Your task to perform on an android device: Open Maps and search for coffee Image 0: 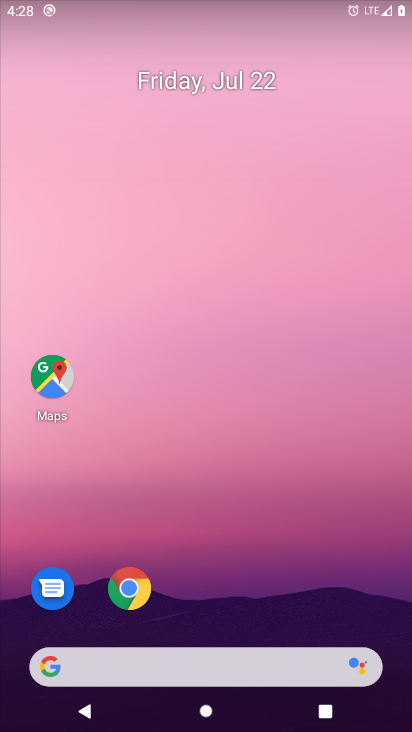
Step 0: drag from (134, 3) to (199, 338)
Your task to perform on an android device: Open Maps and search for coffee Image 1: 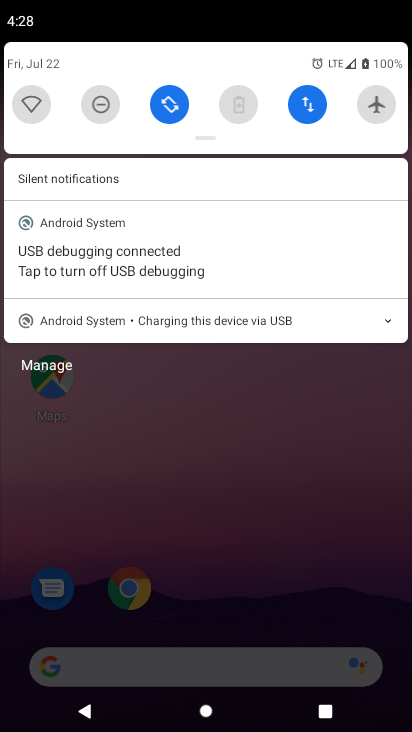
Step 1: press home button
Your task to perform on an android device: Open Maps and search for coffee Image 2: 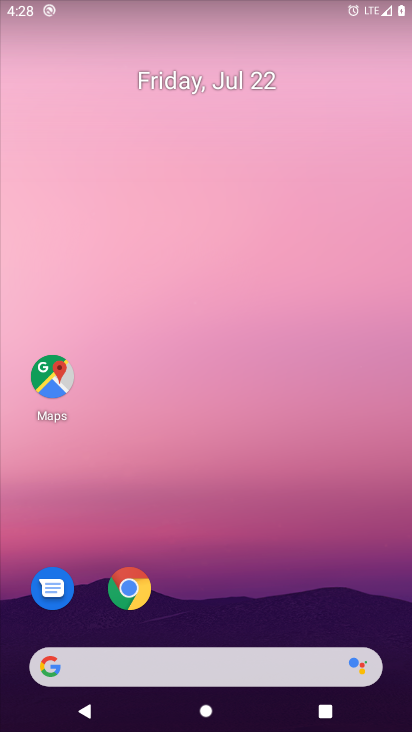
Step 2: drag from (215, 606) to (191, 126)
Your task to perform on an android device: Open Maps and search for coffee Image 3: 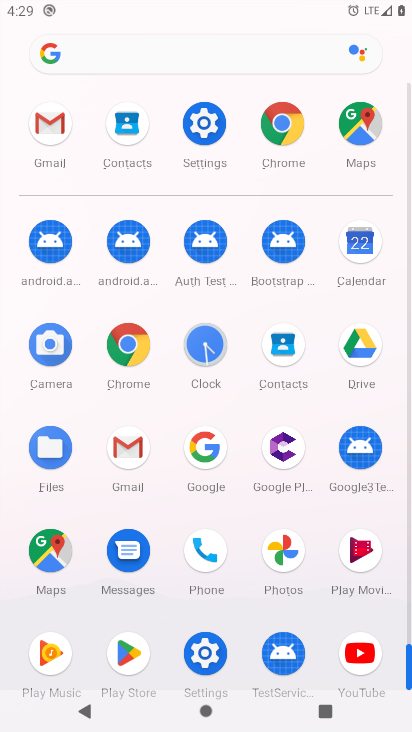
Step 3: click (46, 557)
Your task to perform on an android device: Open Maps and search for coffee Image 4: 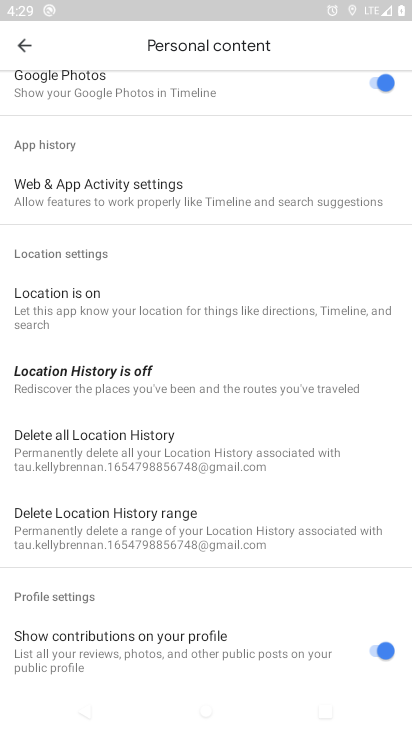
Step 4: click (16, 34)
Your task to perform on an android device: Open Maps and search for coffee Image 5: 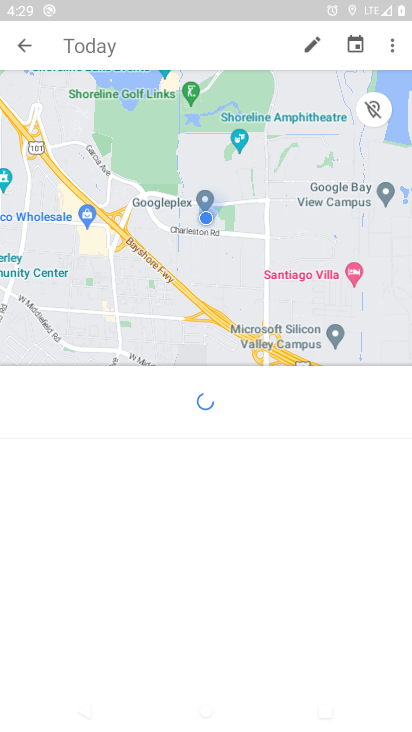
Step 5: click (21, 54)
Your task to perform on an android device: Open Maps and search for coffee Image 6: 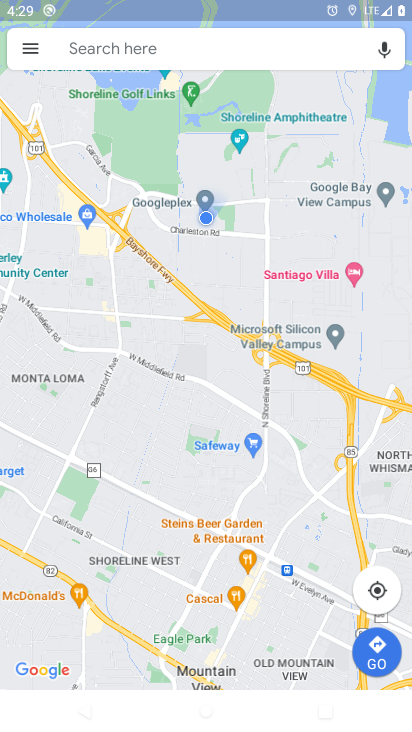
Step 6: click (74, 45)
Your task to perform on an android device: Open Maps and search for coffee Image 7: 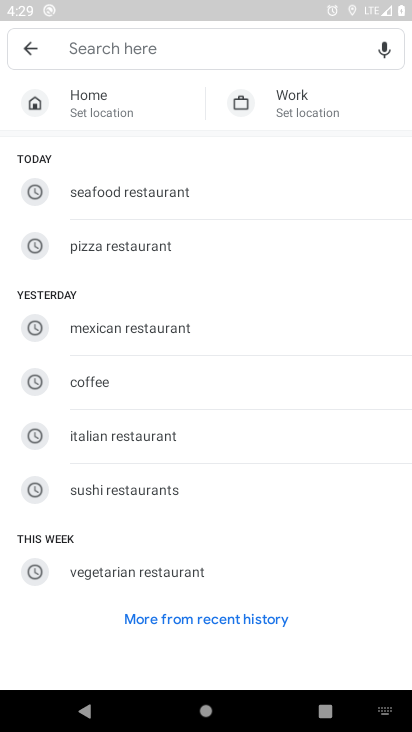
Step 7: type " coffee"
Your task to perform on an android device: Open Maps and search for coffee Image 8: 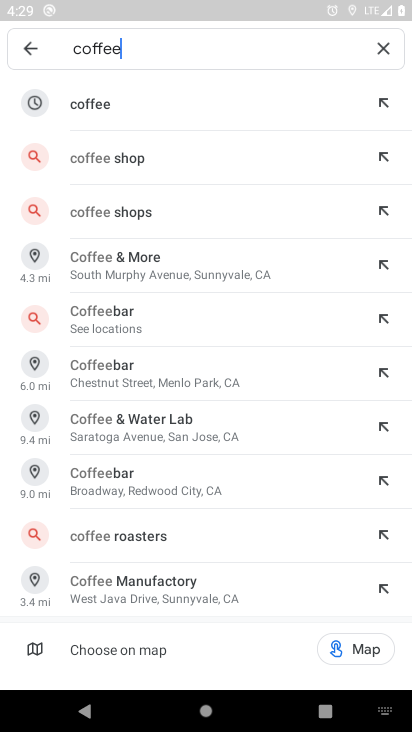
Step 8: click (101, 111)
Your task to perform on an android device: Open Maps and search for coffee Image 9: 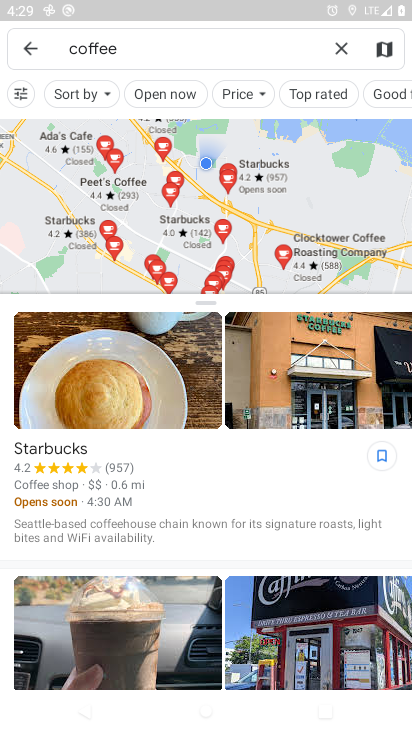
Step 9: task complete